Your task to perform on an android device: turn vacation reply on in the gmail app Image 0: 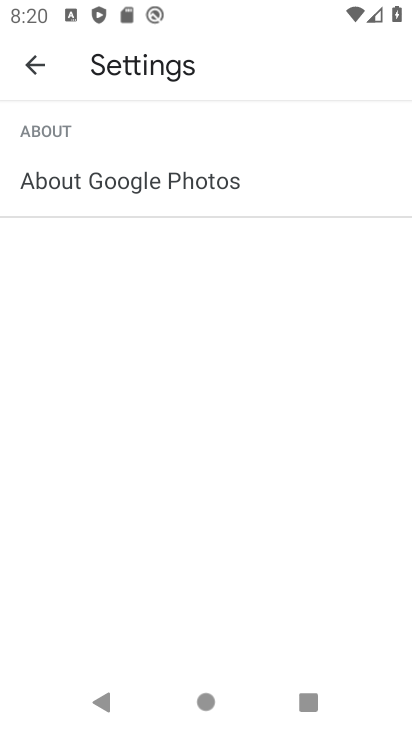
Step 0: press home button
Your task to perform on an android device: turn vacation reply on in the gmail app Image 1: 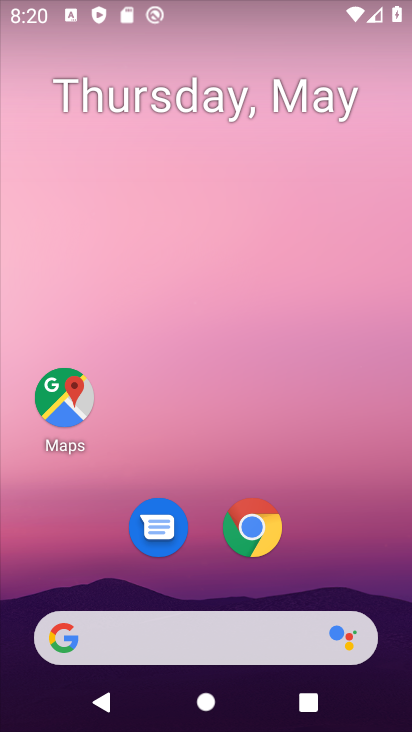
Step 1: drag from (21, 605) to (306, 71)
Your task to perform on an android device: turn vacation reply on in the gmail app Image 2: 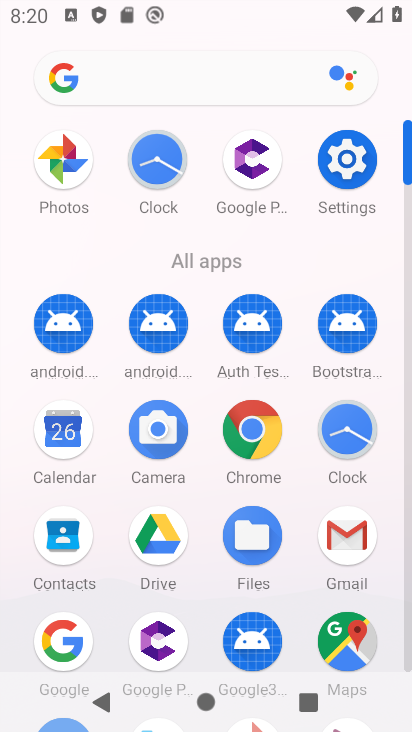
Step 2: click (339, 540)
Your task to perform on an android device: turn vacation reply on in the gmail app Image 3: 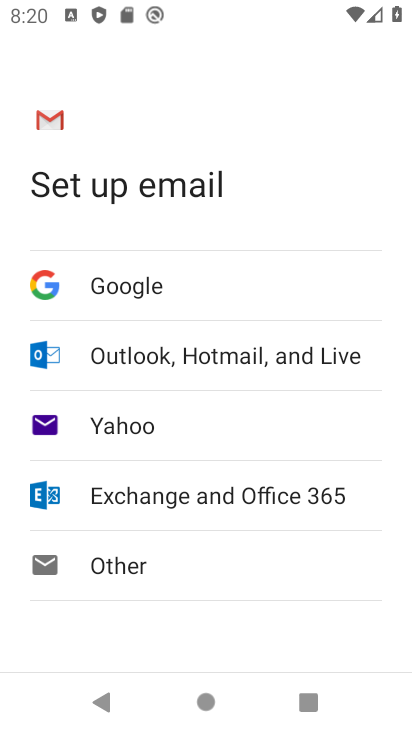
Step 3: press back button
Your task to perform on an android device: turn vacation reply on in the gmail app Image 4: 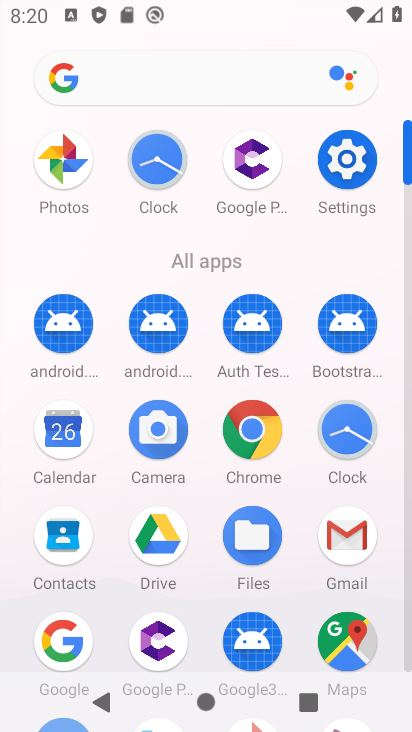
Step 4: click (351, 526)
Your task to perform on an android device: turn vacation reply on in the gmail app Image 5: 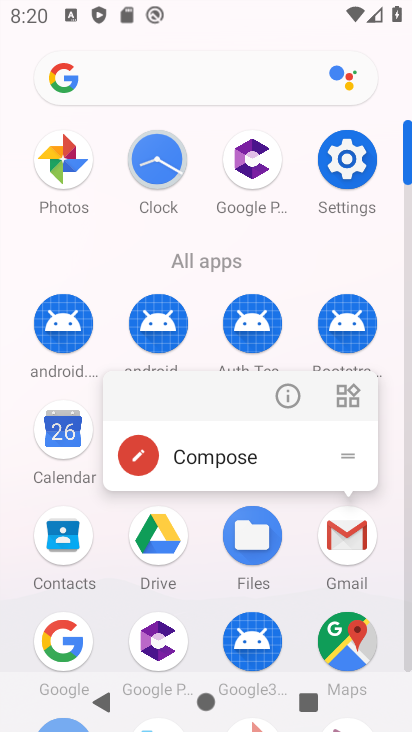
Step 5: click (340, 533)
Your task to perform on an android device: turn vacation reply on in the gmail app Image 6: 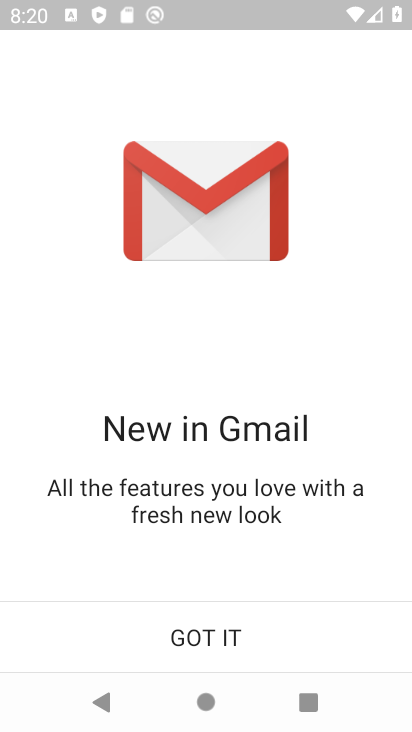
Step 6: click (259, 641)
Your task to perform on an android device: turn vacation reply on in the gmail app Image 7: 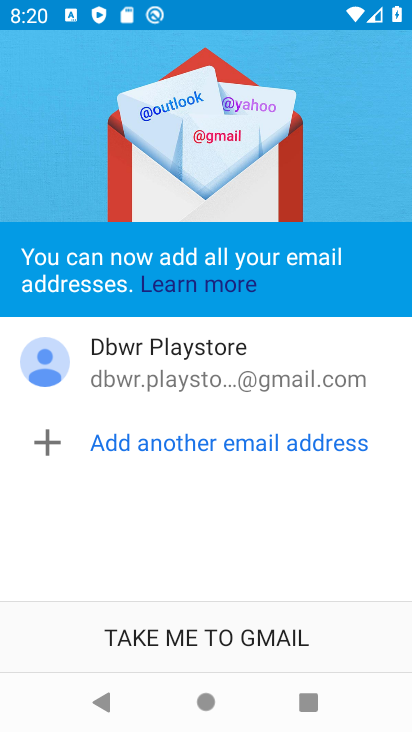
Step 7: click (214, 635)
Your task to perform on an android device: turn vacation reply on in the gmail app Image 8: 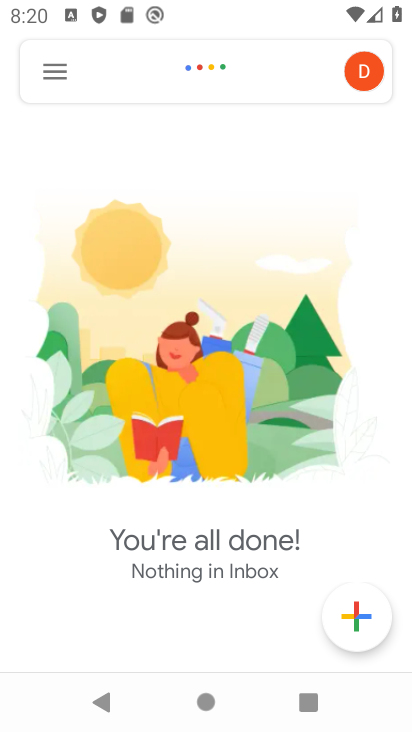
Step 8: click (64, 82)
Your task to perform on an android device: turn vacation reply on in the gmail app Image 9: 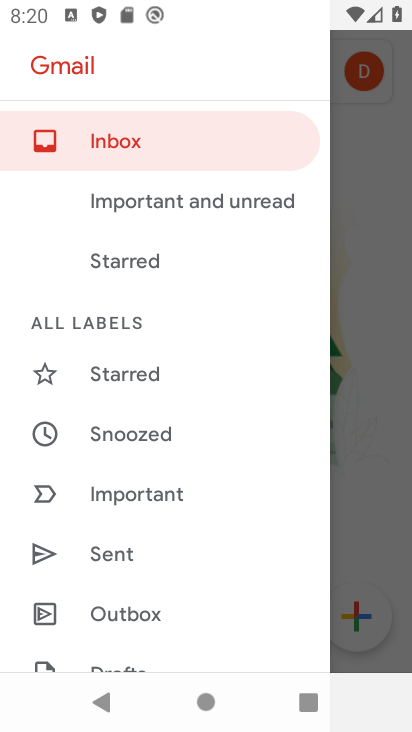
Step 9: drag from (19, 592) to (230, 135)
Your task to perform on an android device: turn vacation reply on in the gmail app Image 10: 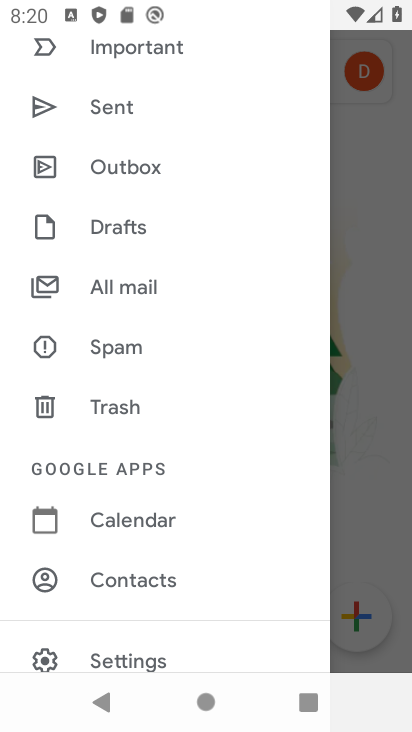
Step 10: click (100, 667)
Your task to perform on an android device: turn vacation reply on in the gmail app Image 11: 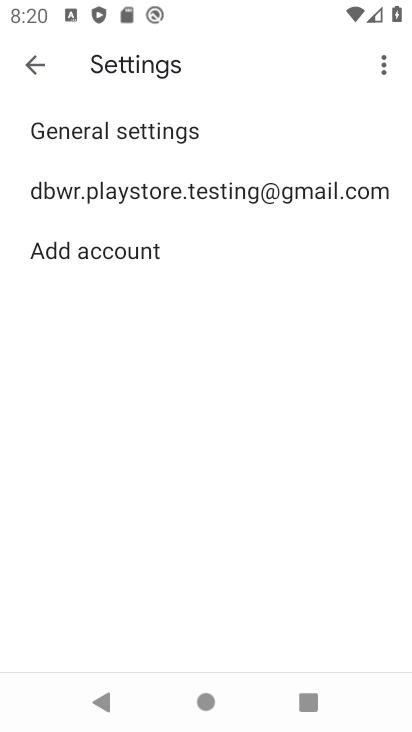
Step 11: click (134, 196)
Your task to perform on an android device: turn vacation reply on in the gmail app Image 12: 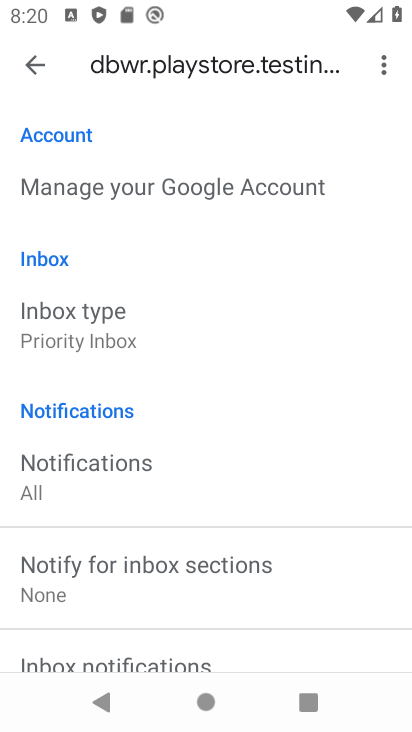
Step 12: drag from (48, 453) to (173, 271)
Your task to perform on an android device: turn vacation reply on in the gmail app Image 13: 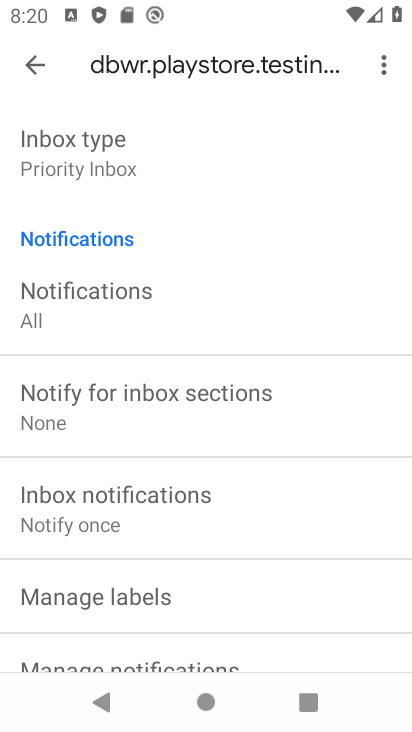
Step 13: drag from (30, 546) to (200, 172)
Your task to perform on an android device: turn vacation reply on in the gmail app Image 14: 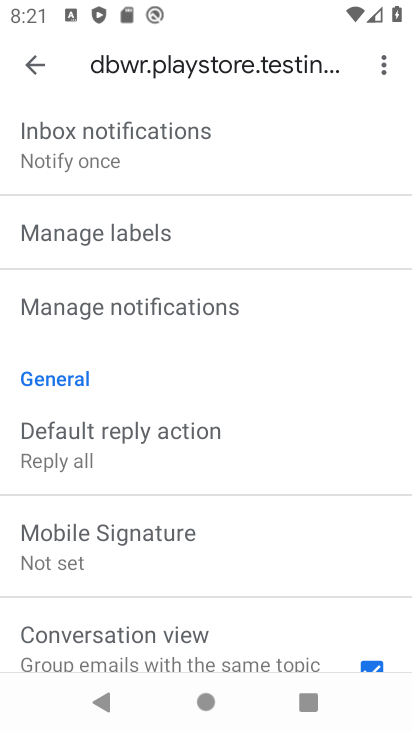
Step 14: drag from (11, 632) to (193, 230)
Your task to perform on an android device: turn vacation reply on in the gmail app Image 15: 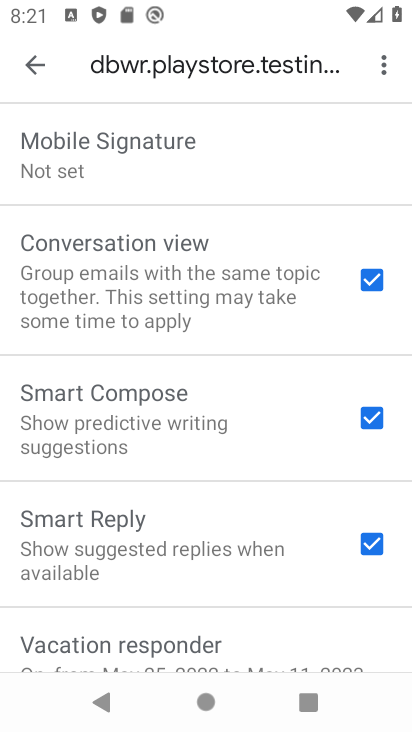
Step 15: click (50, 633)
Your task to perform on an android device: turn vacation reply on in the gmail app Image 16: 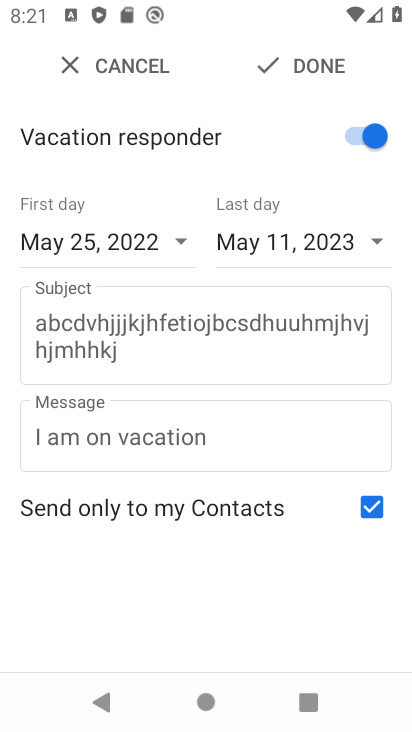
Step 16: click (311, 67)
Your task to perform on an android device: turn vacation reply on in the gmail app Image 17: 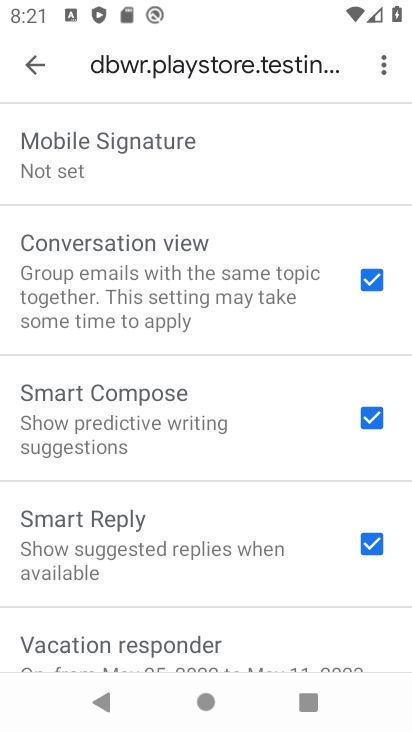
Step 17: task complete